Your task to perform on an android device: Open settings on Google Maps Image 0: 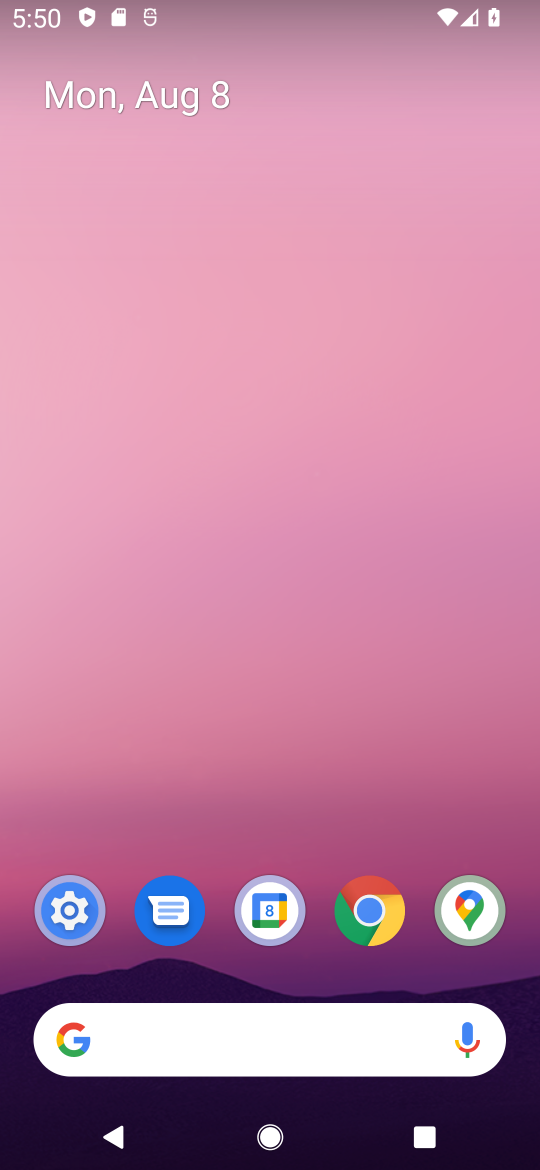
Step 0: press home button
Your task to perform on an android device: Open settings on Google Maps Image 1: 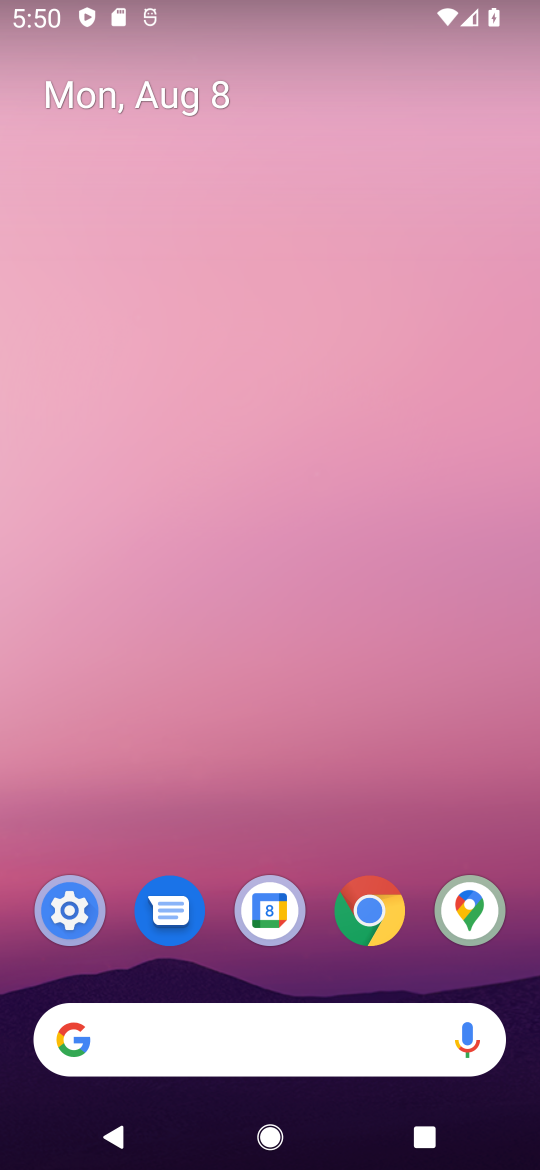
Step 1: click (470, 906)
Your task to perform on an android device: Open settings on Google Maps Image 2: 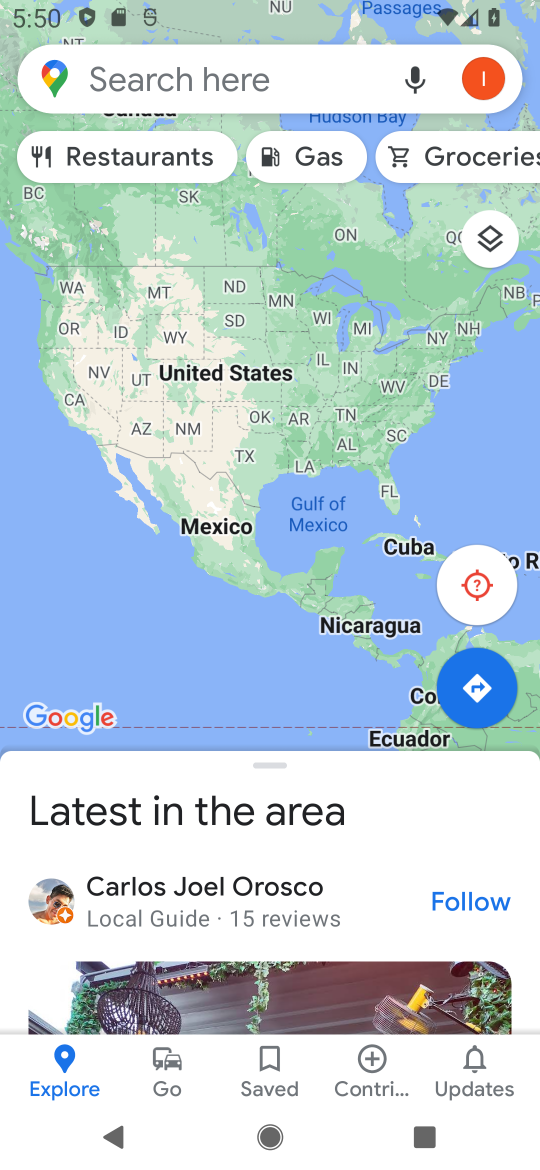
Step 2: click (484, 81)
Your task to perform on an android device: Open settings on Google Maps Image 3: 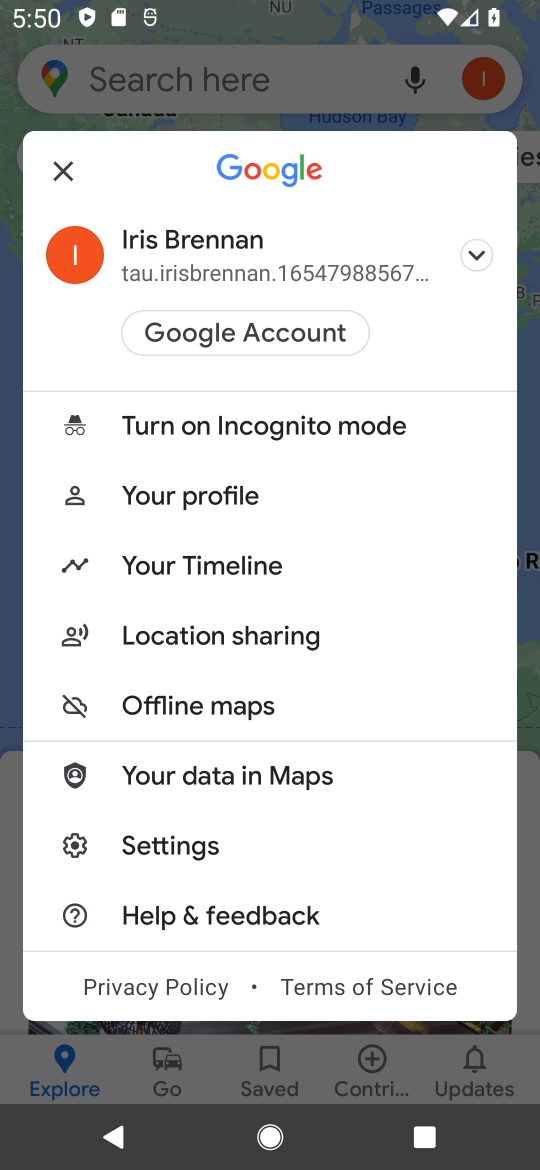
Step 3: click (168, 841)
Your task to perform on an android device: Open settings on Google Maps Image 4: 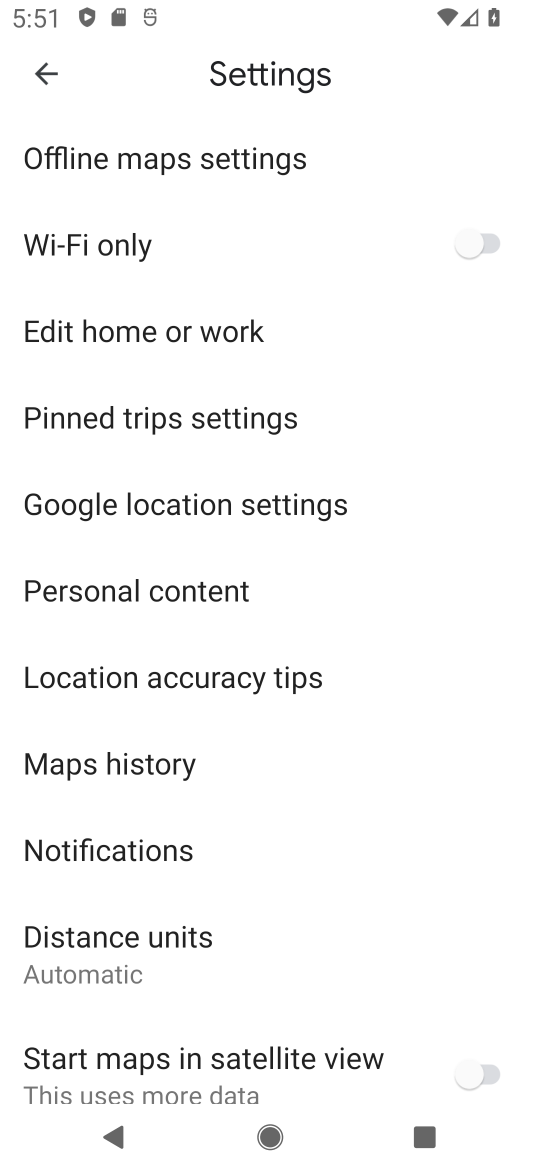
Step 4: task complete